Your task to perform on an android device: turn on sleep mode Image 0: 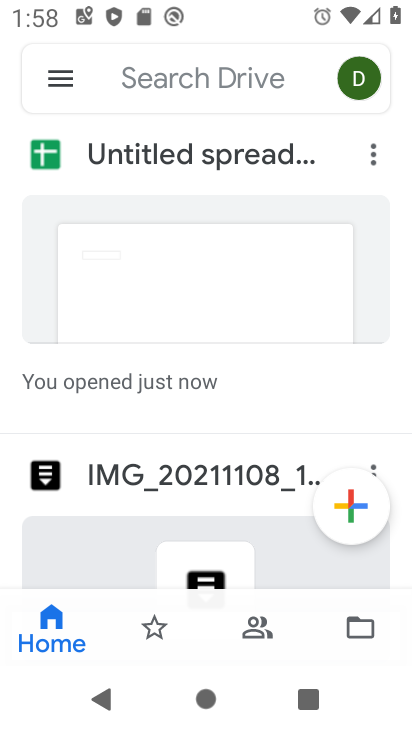
Step 0: press home button
Your task to perform on an android device: turn on sleep mode Image 1: 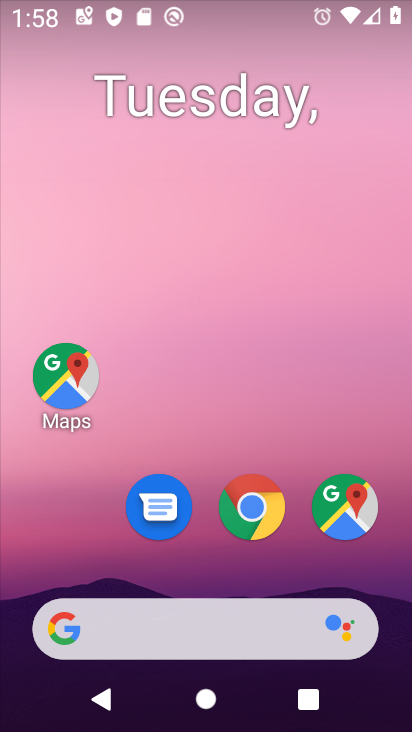
Step 1: drag from (246, 573) to (286, 243)
Your task to perform on an android device: turn on sleep mode Image 2: 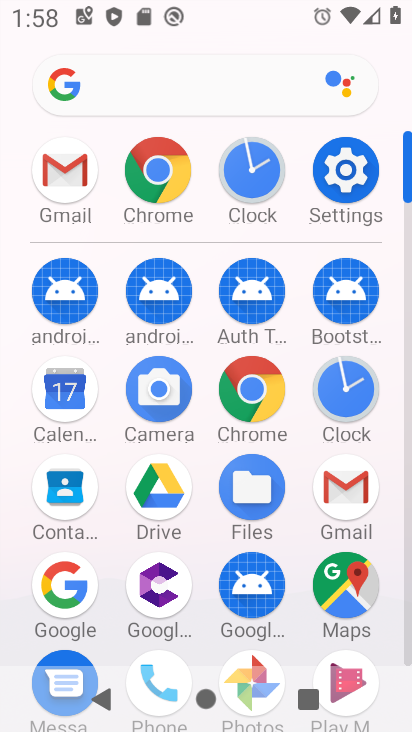
Step 2: click (339, 153)
Your task to perform on an android device: turn on sleep mode Image 3: 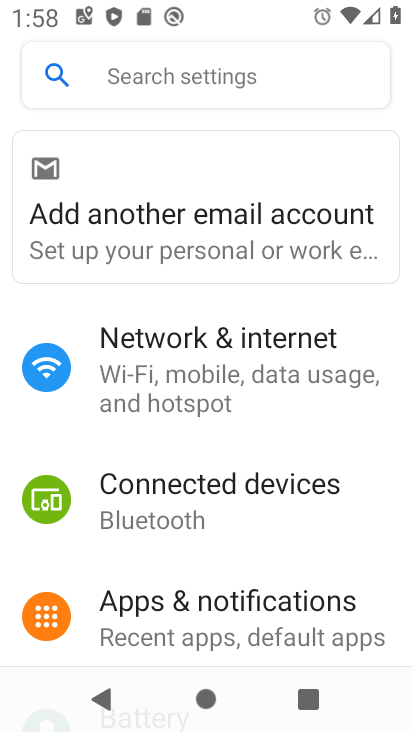
Step 3: task complete